Your task to perform on an android device: all mails in gmail Image 0: 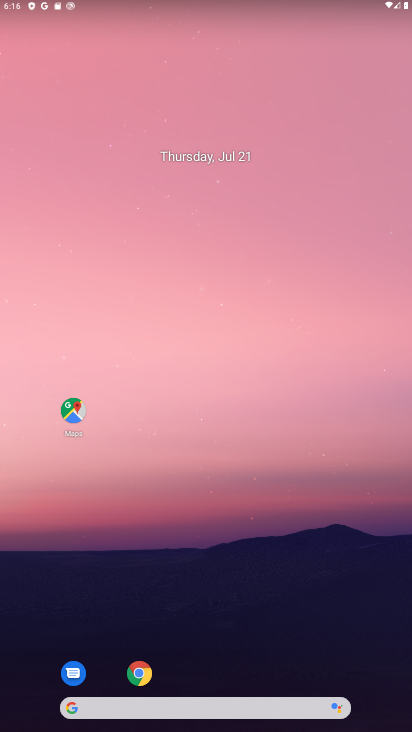
Step 0: drag from (223, 326) to (232, 279)
Your task to perform on an android device: all mails in gmail Image 1: 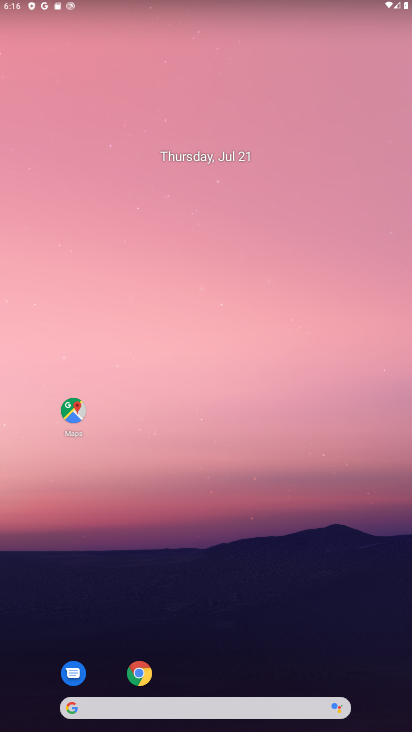
Step 1: drag from (195, 626) to (193, 99)
Your task to perform on an android device: all mails in gmail Image 2: 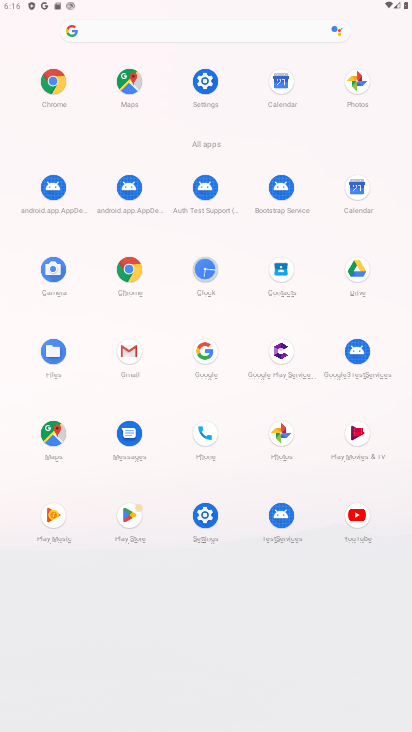
Step 2: click (130, 350)
Your task to perform on an android device: all mails in gmail Image 3: 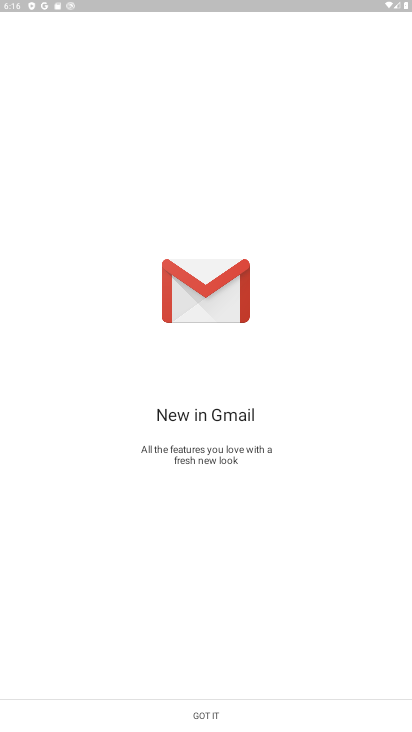
Step 3: click (204, 715)
Your task to perform on an android device: all mails in gmail Image 4: 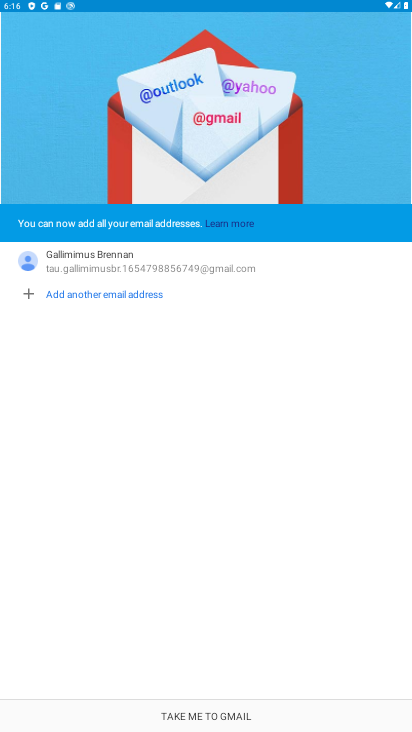
Step 4: click (204, 715)
Your task to perform on an android device: all mails in gmail Image 5: 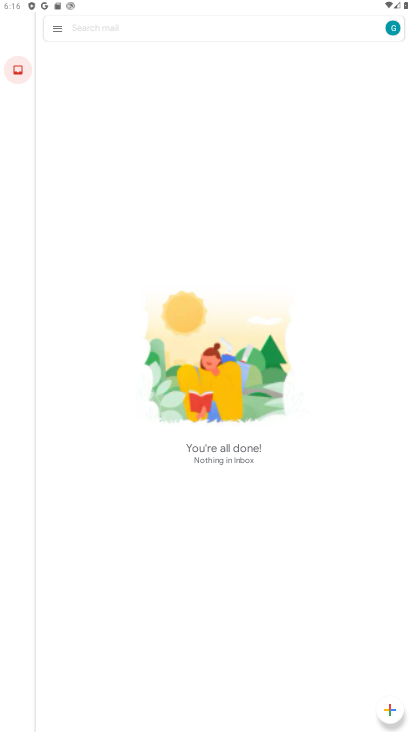
Step 5: click (60, 27)
Your task to perform on an android device: all mails in gmail Image 6: 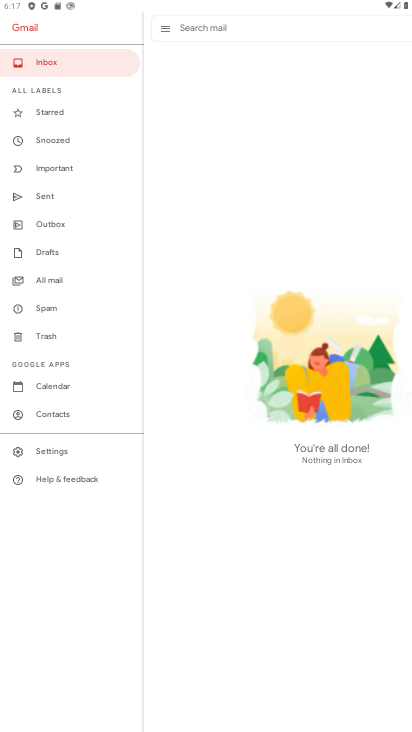
Step 6: click (49, 282)
Your task to perform on an android device: all mails in gmail Image 7: 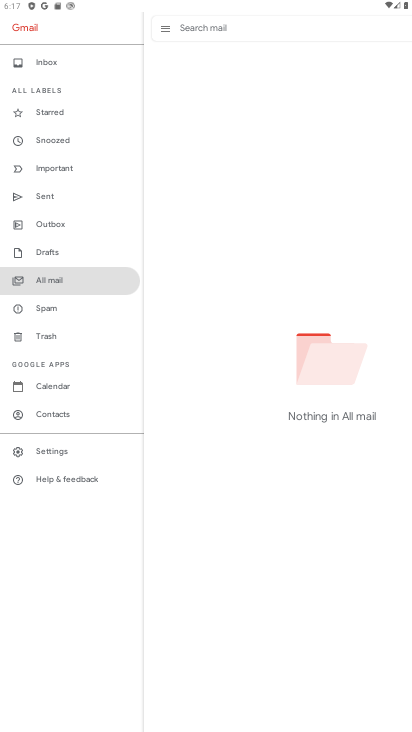
Step 7: task complete